Your task to perform on an android device: change the clock display to show seconds Image 0: 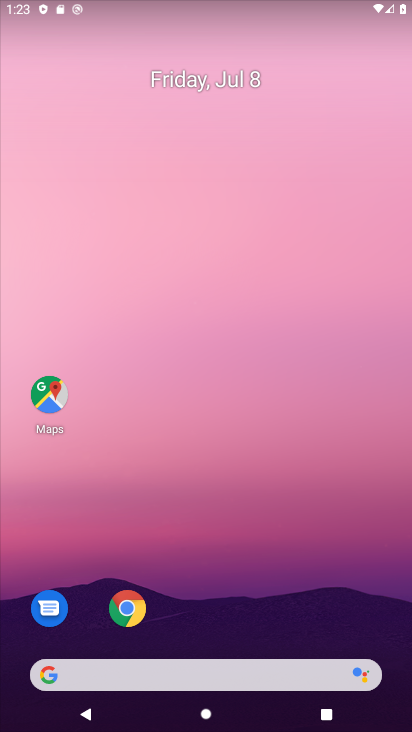
Step 0: drag from (172, 637) to (261, 153)
Your task to perform on an android device: change the clock display to show seconds Image 1: 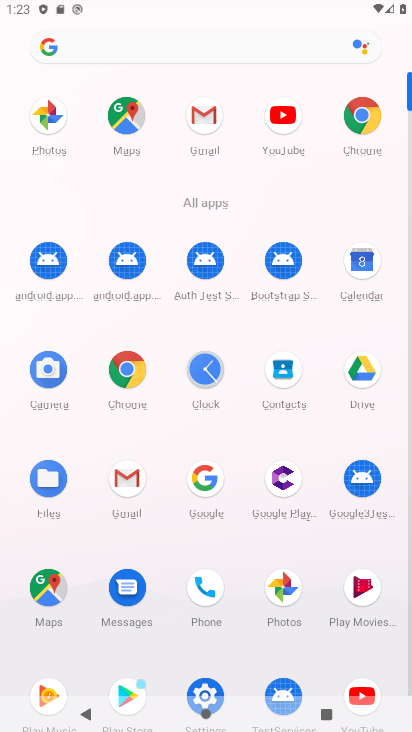
Step 1: click (215, 376)
Your task to perform on an android device: change the clock display to show seconds Image 2: 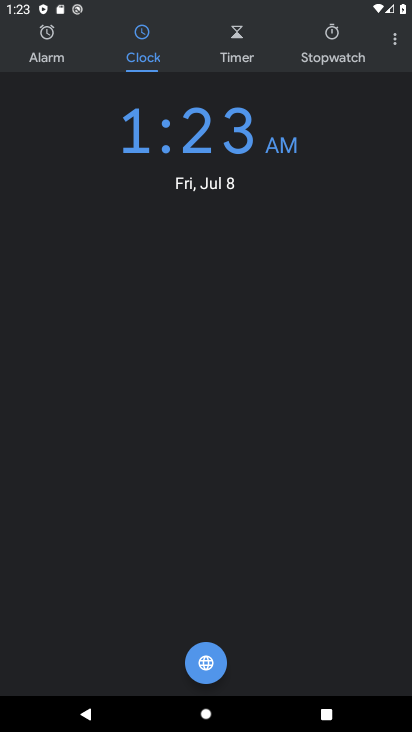
Step 2: click (391, 36)
Your task to perform on an android device: change the clock display to show seconds Image 3: 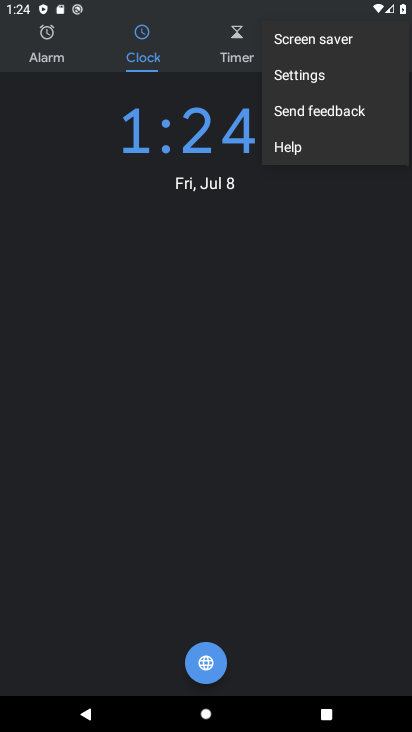
Step 3: click (316, 87)
Your task to perform on an android device: change the clock display to show seconds Image 4: 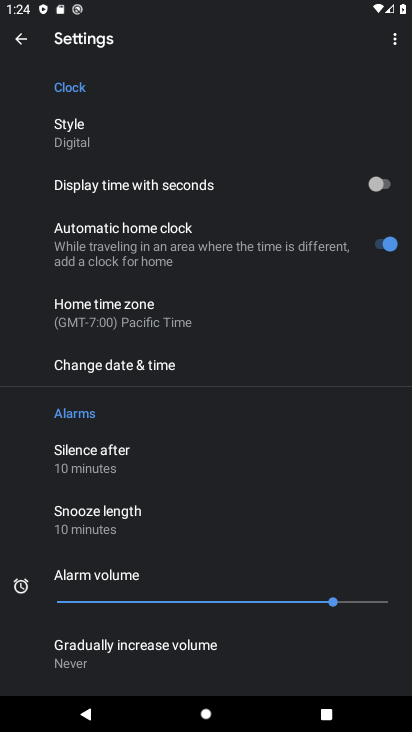
Step 4: click (398, 183)
Your task to perform on an android device: change the clock display to show seconds Image 5: 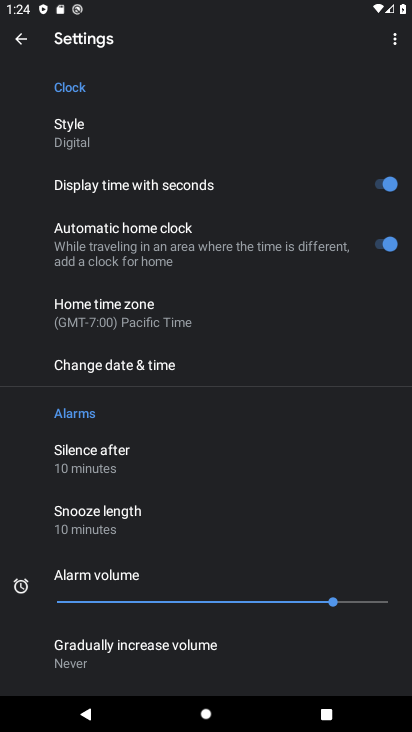
Step 5: task complete